Your task to perform on an android device: check android version Image 0: 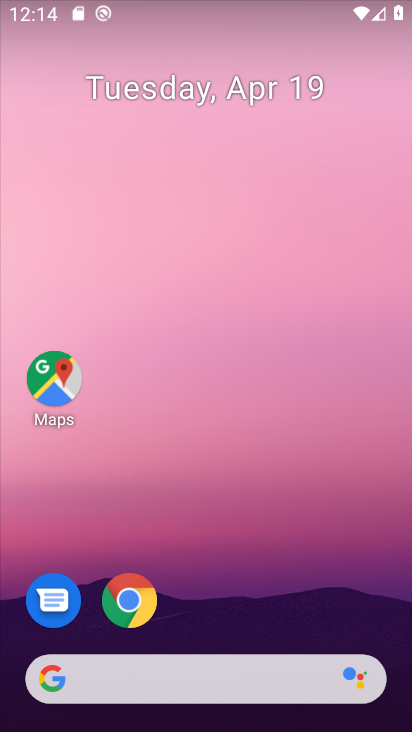
Step 0: drag from (220, 634) to (138, 7)
Your task to perform on an android device: check android version Image 1: 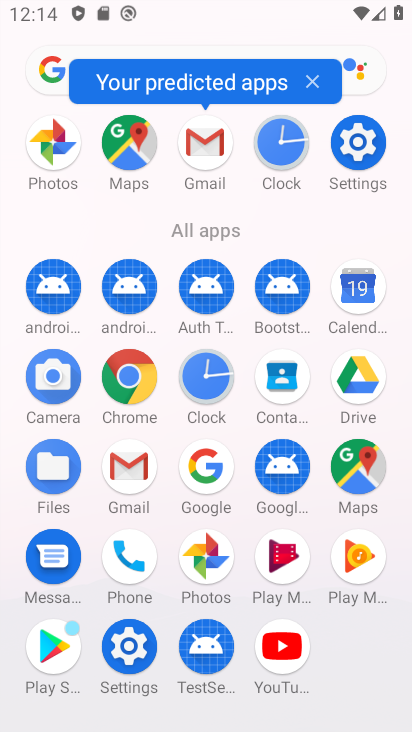
Step 1: click (365, 153)
Your task to perform on an android device: check android version Image 2: 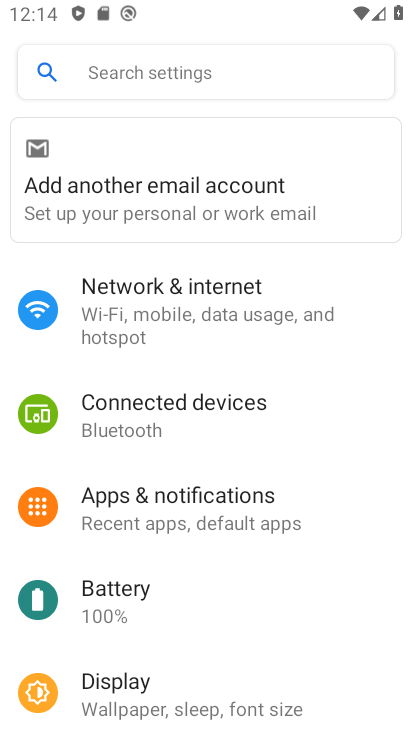
Step 2: drag from (214, 562) to (284, 1)
Your task to perform on an android device: check android version Image 3: 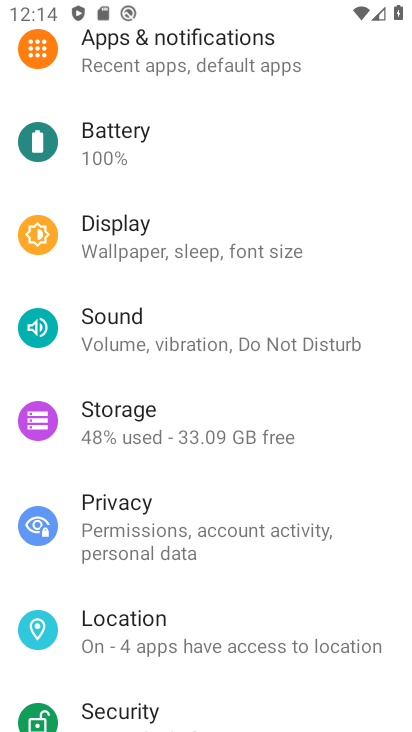
Step 3: drag from (193, 613) to (132, 48)
Your task to perform on an android device: check android version Image 4: 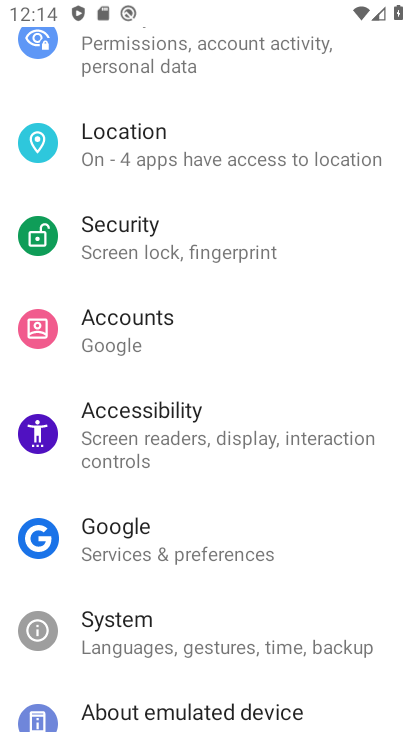
Step 4: click (162, 698)
Your task to perform on an android device: check android version Image 5: 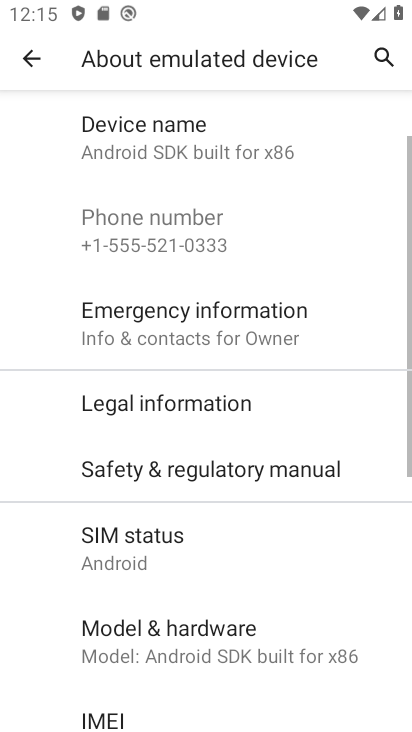
Step 5: drag from (182, 628) to (139, 83)
Your task to perform on an android device: check android version Image 6: 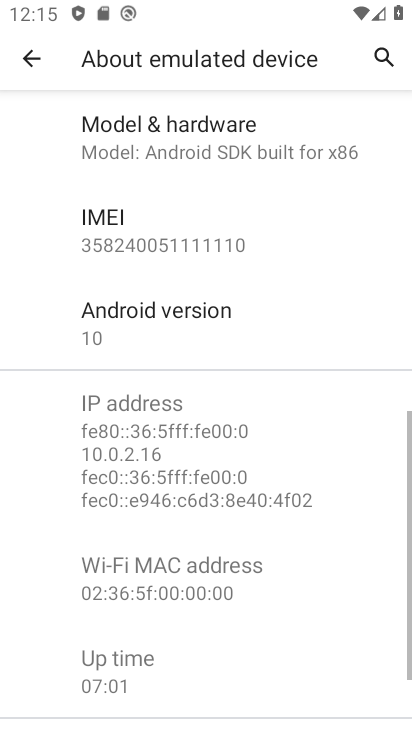
Step 6: click (131, 336)
Your task to perform on an android device: check android version Image 7: 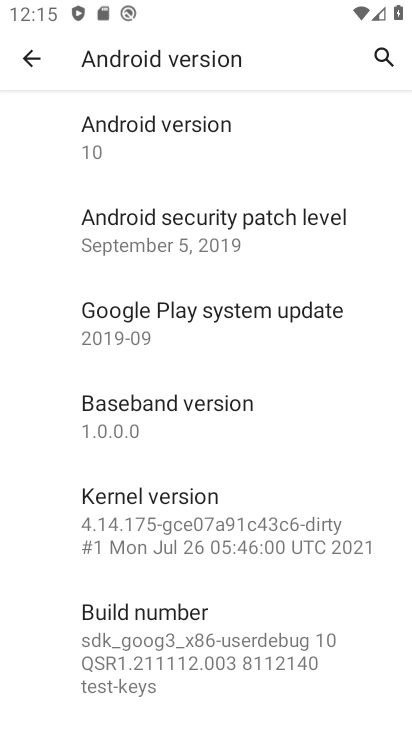
Step 7: click (138, 126)
Your task to perform on an android device: check android version Image 8: 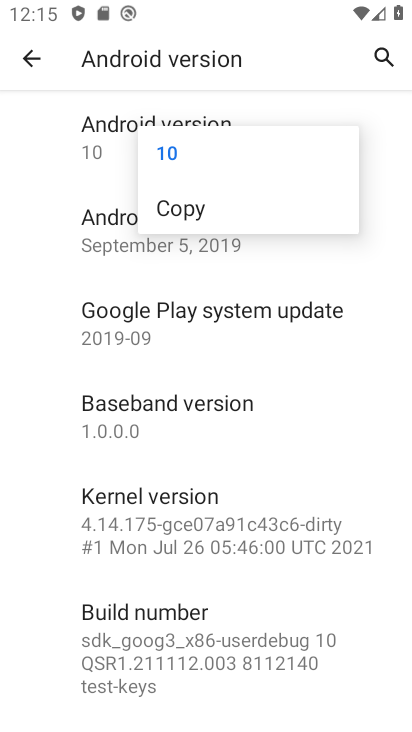
Step 8: task complete